Your task to perform on an android device: Open Maps and search for coffee Image 0: 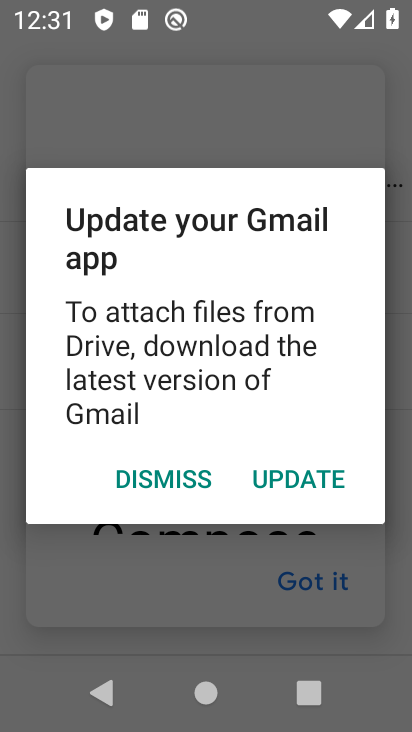
Step 0: press home button
Your task to perform on an android device: Open Maps and search for coffee Image 1: 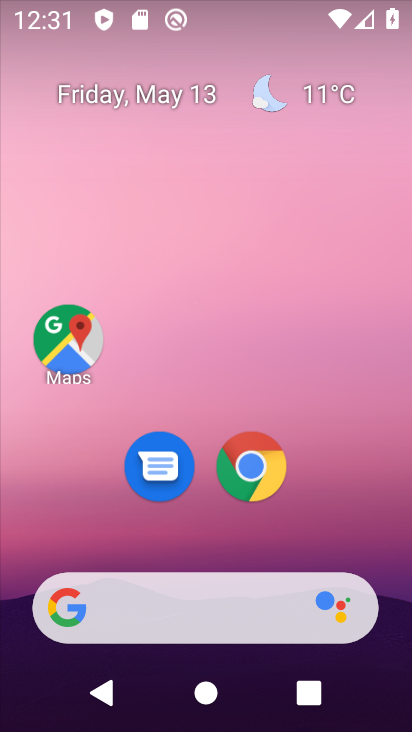
Step 1: drag from (282, 536) to (334, 1)
Your task to perform on an android device: Open Maps and search for coffee Image 2: 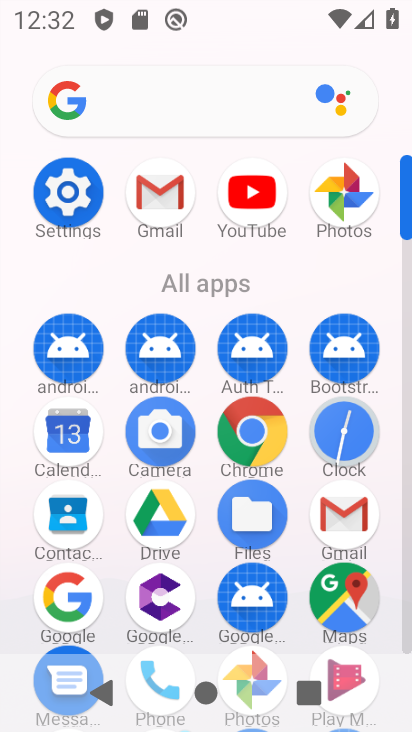
Step 2: click (328, 602)
Your task to perform on an android device: Open Maps and search for coffee Image 3: 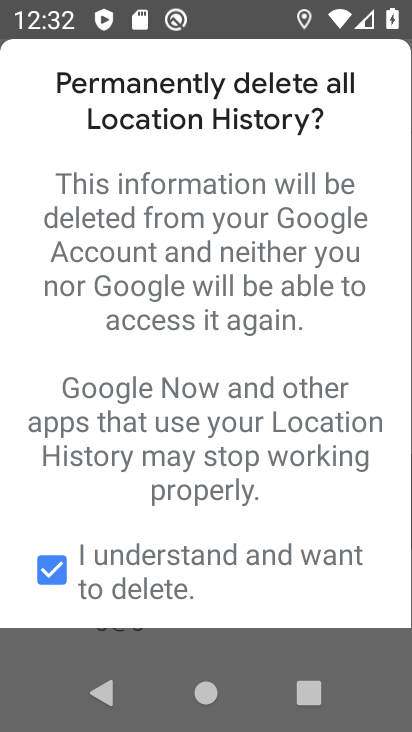
Step 3: press back button
Your task to perform on an android device: Open Maps and search for coffee Image 4: 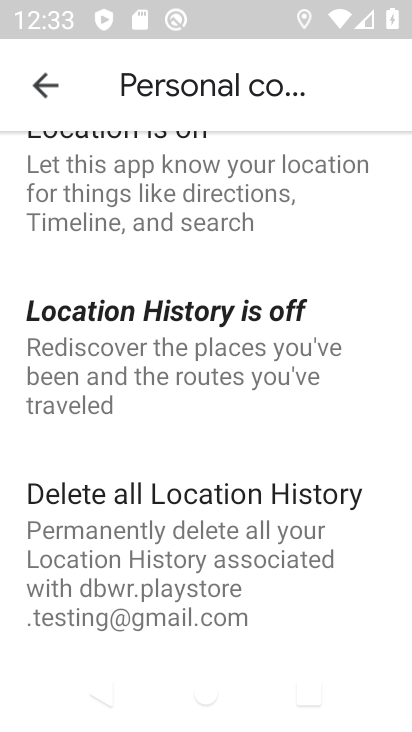
Step 4: click (40, 105)
Your task to perform on an android device: Open Maps and search for coffee Image 5: 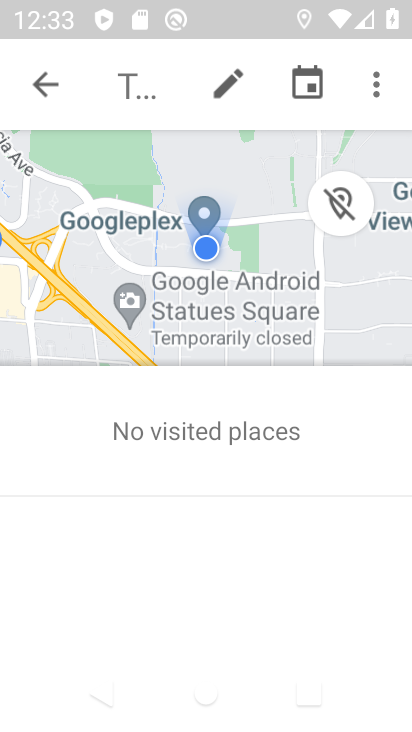
Step 5: click (42, 84)
Your task to perform on an android device: Open Maps and search for coffee Image 6: 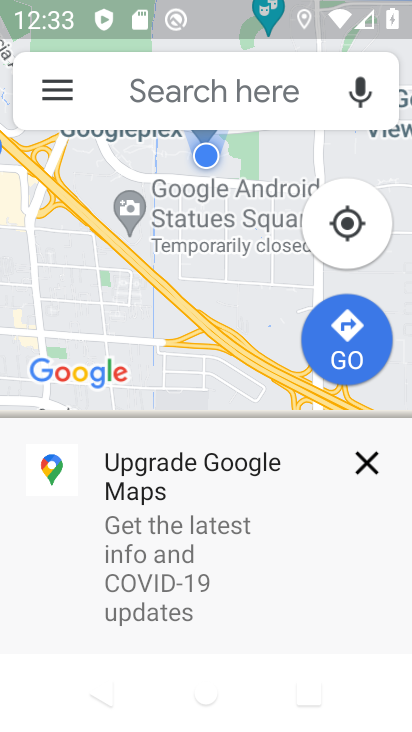
Step 6: click (201, 79)
Your task to perform on an android device: Open Maps and search for coffee Image 7: 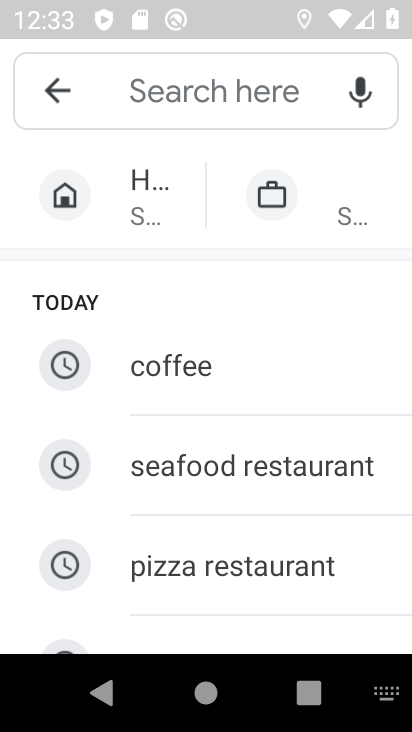
Step 7: type "coffee"
Your task to perform on an android device: Open Maps and search for coffee Image 8: 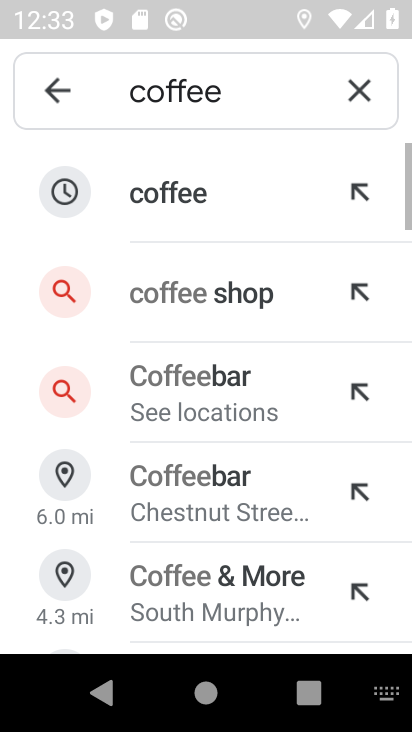
Step 8: click (164, 202)
Your task to perform on an android device: Open Maps and search for coffee Image 9: 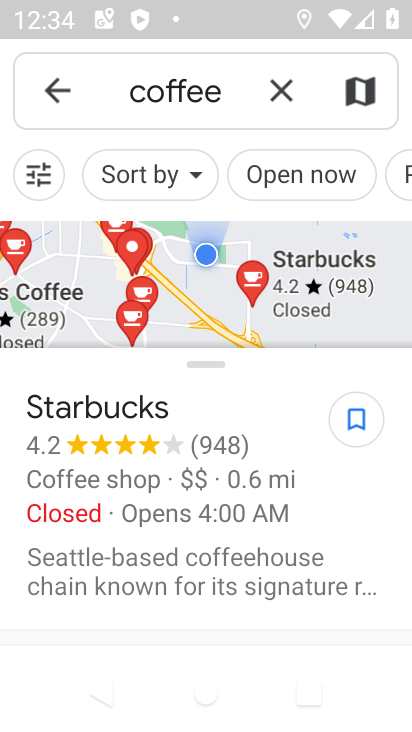
Step 9: task complete